Your task to perform on an android device: Go to ESPN.com Image 0: 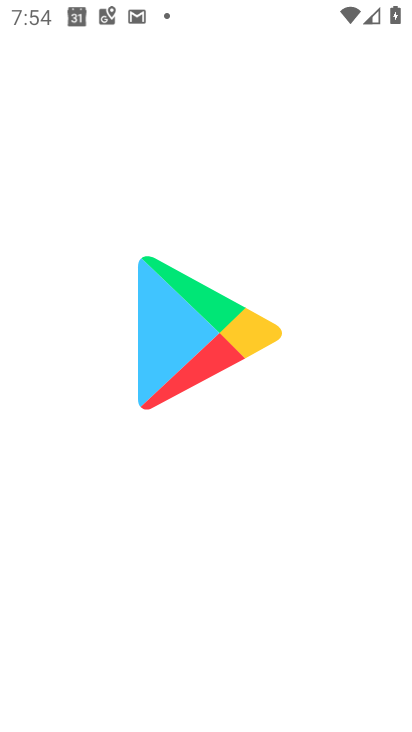
Step 0: drag from (114, 625) to (195, 163)
Your task to perform on an android device: Go to ESPN.com Image 1: 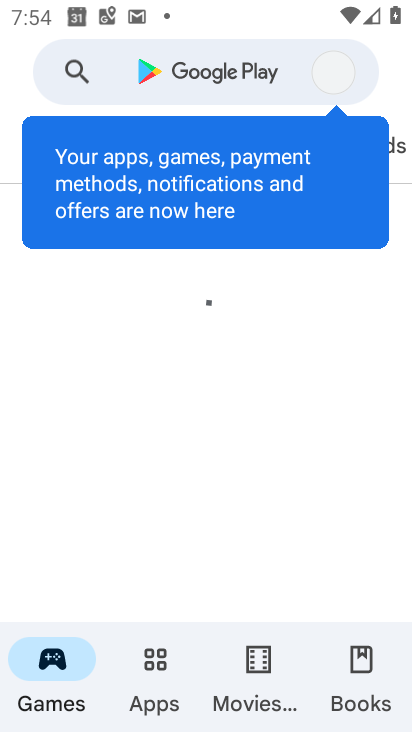
Step 1: press home button
Your task to perform on an android device: Go to ESPN.com Image 2: 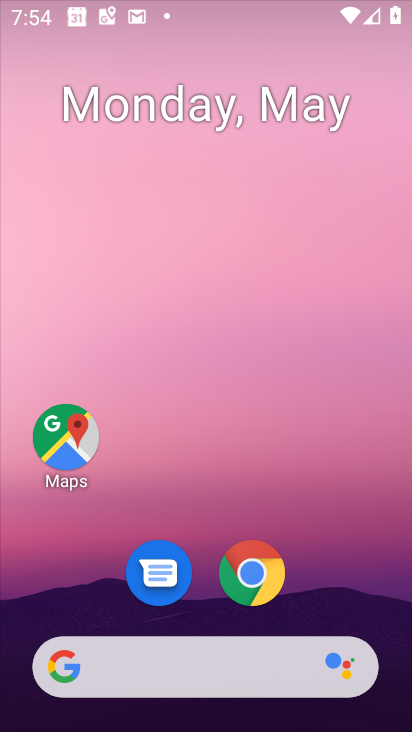
Step 2: drag from (176, 644) to (306, 68)
Your task to perform on an android device: Go to ESPN.com Image 3: 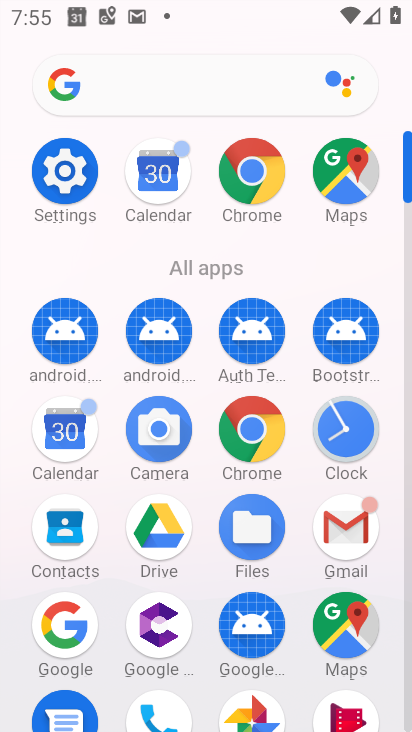
Step 3: click (230, 159)
Your task to perform on an android device: Go to ESPN.com Image 4: 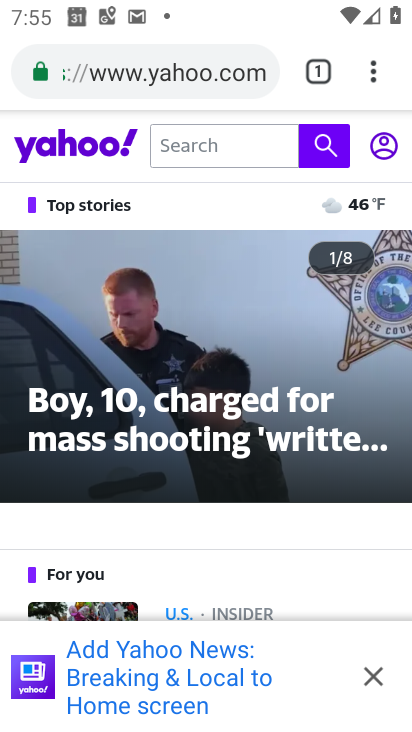
Step 4: click (211, 79)
Your task to perform on an android device: Go to ESPN.com Image 5: 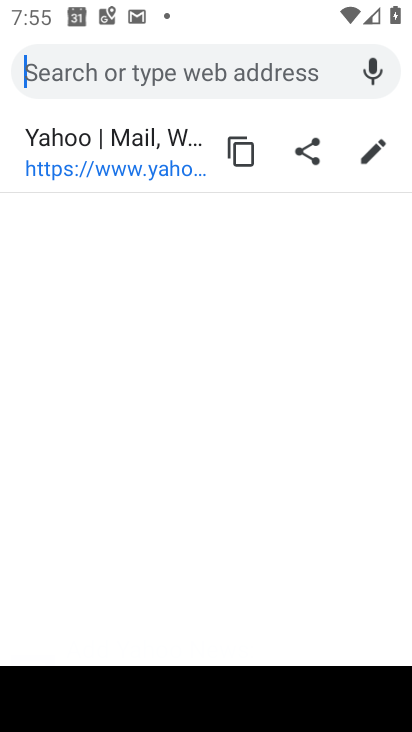
Step 5: type "espn"
Your task to perform on an android device: Go to ESPN.com Image 6: 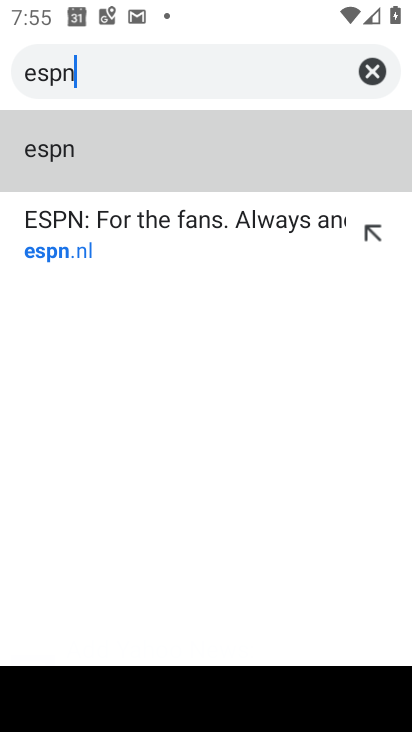
Step 6: click (173, 266)
Your task to perform on an android device: Go to ESPN.com Image 7: 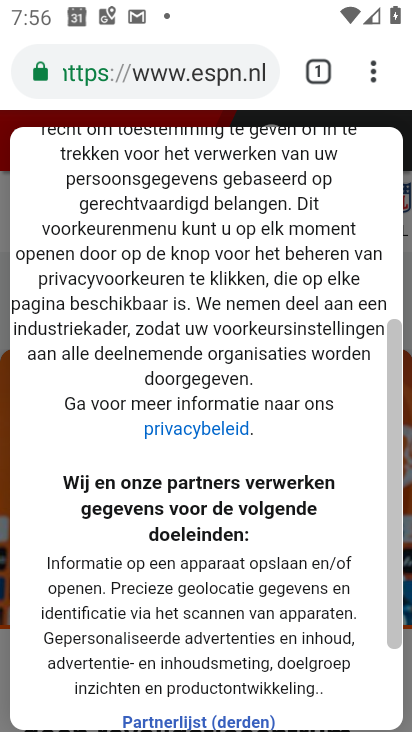
Step 7: task complete